Your task to perform on an android device: Open the camera Image 0: 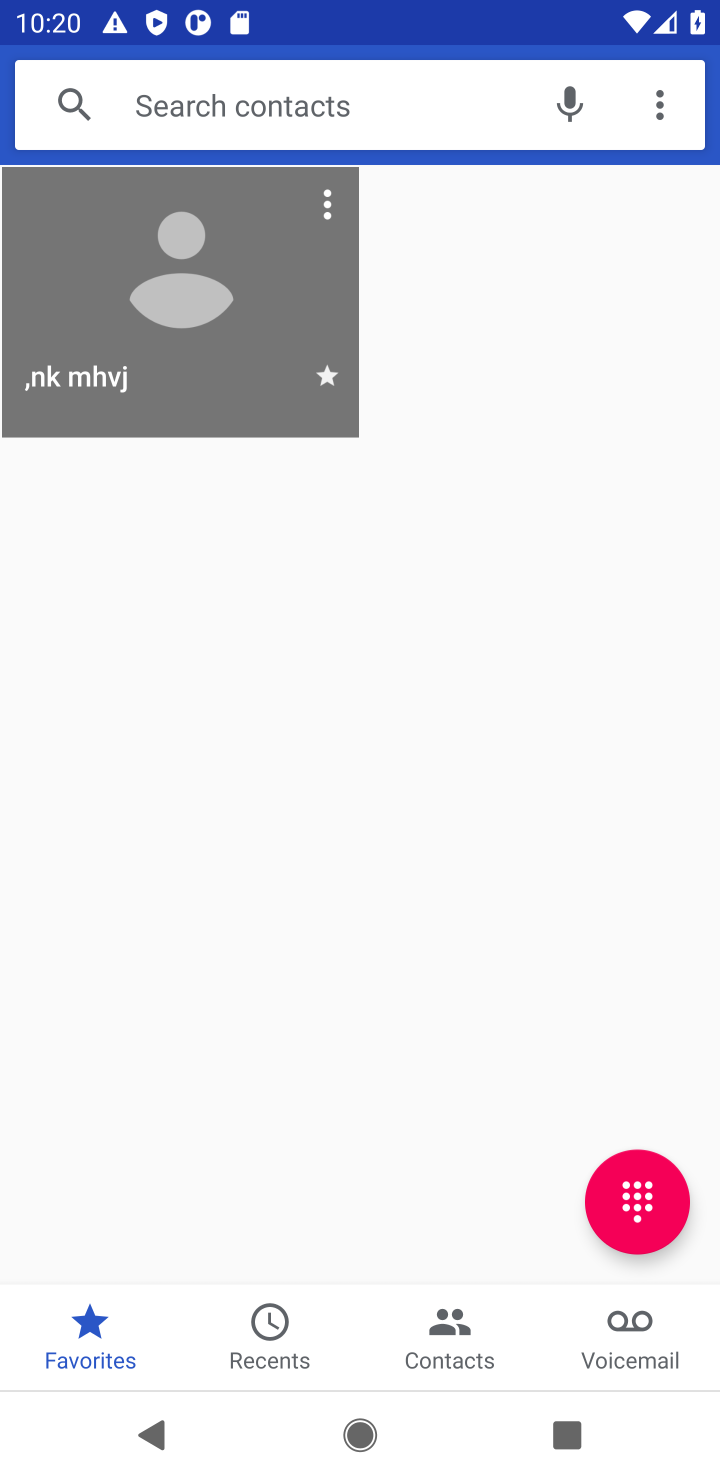
Step 0: press home button
Your task to perform on an android device: Open the camera Image 1: 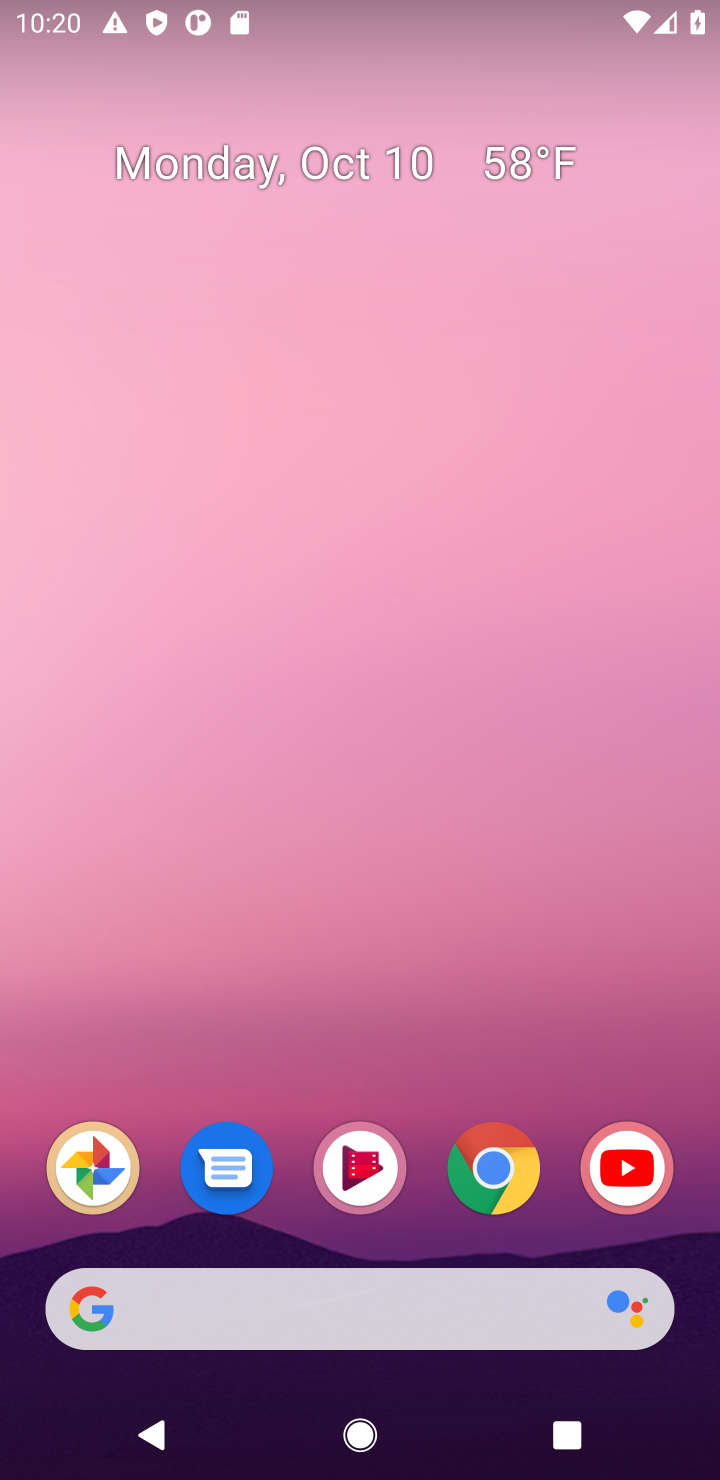
Step 1: drag from (362, 919) to (419, 368)
Your task to perform on an android device: Open the camera Image 2: 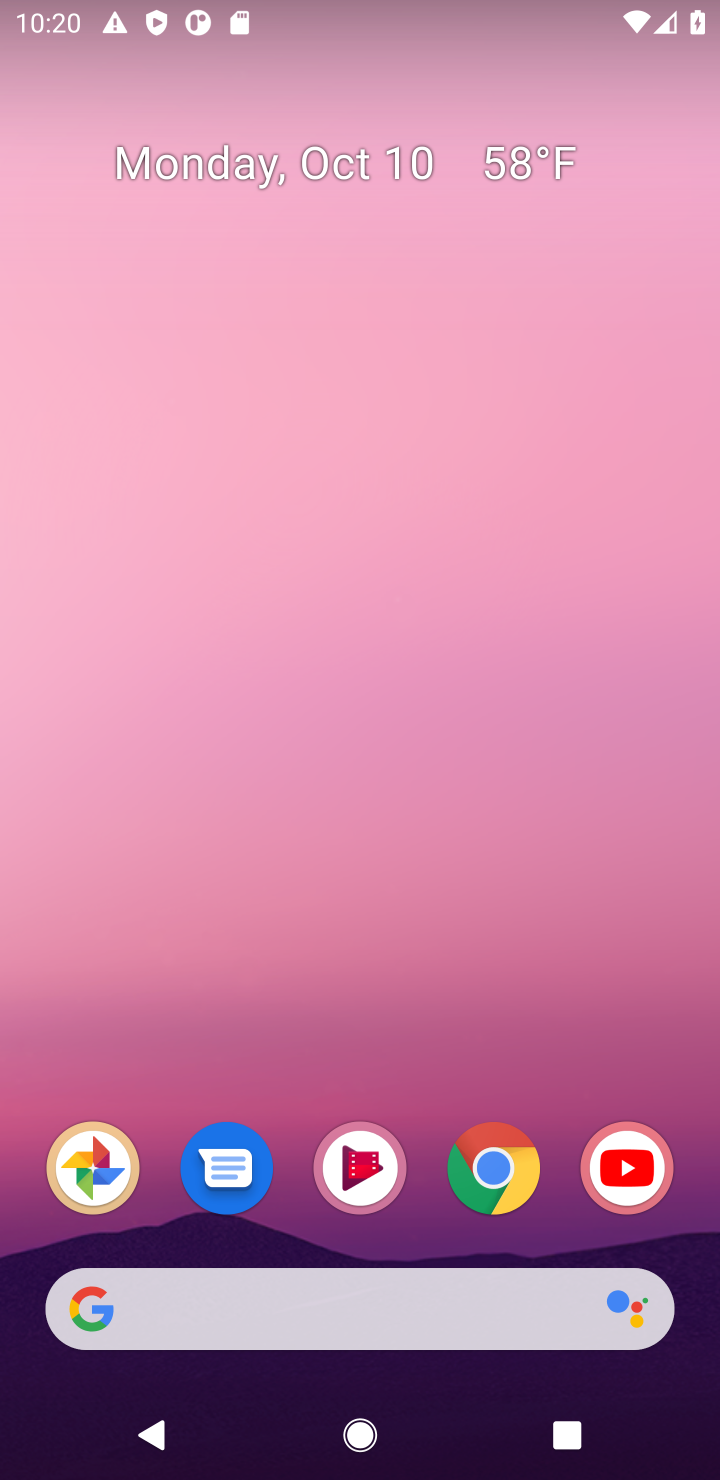
Step 2: drag from (331, 1104) to (428, 307)
Your task to perform on an android device: Open the camera Image 3: 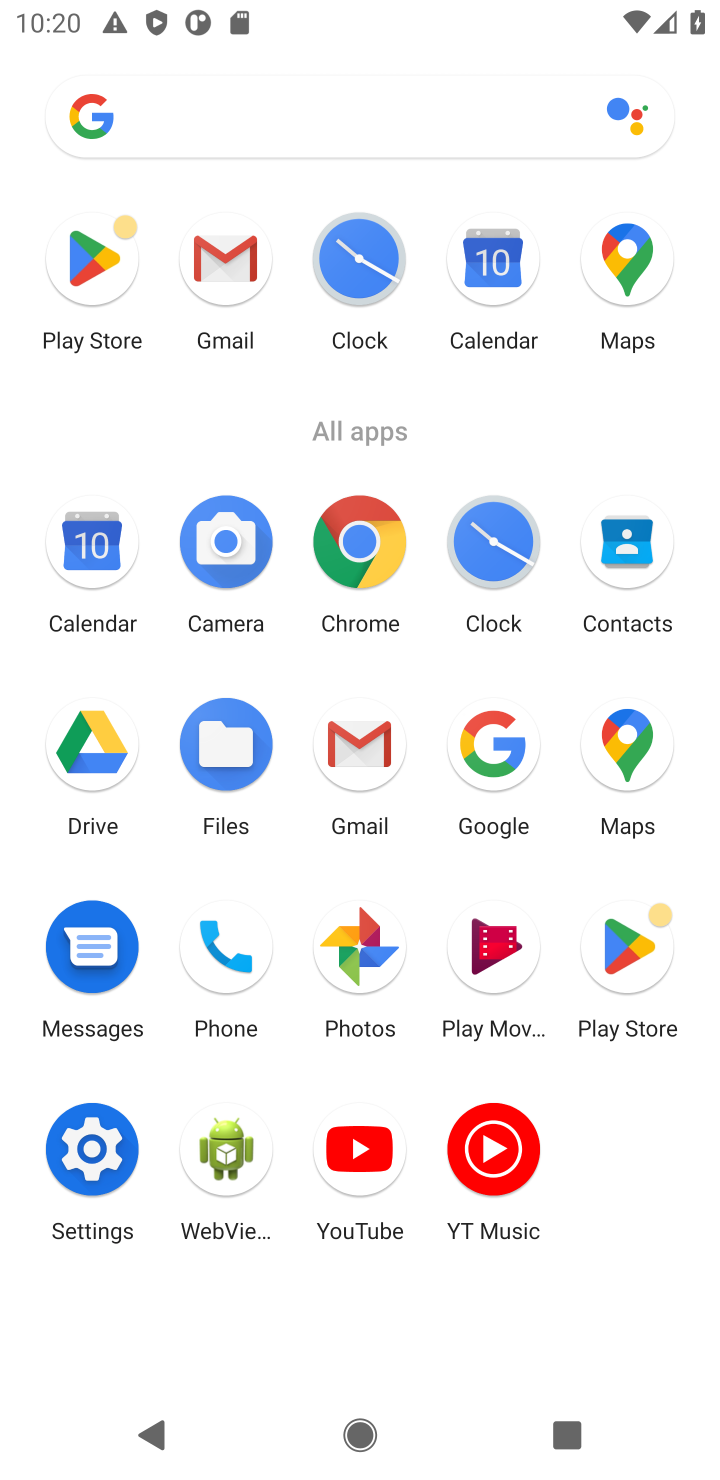
Step 3: click (224, 593)
Your task to perform on an android device: Open the camera Image 4: 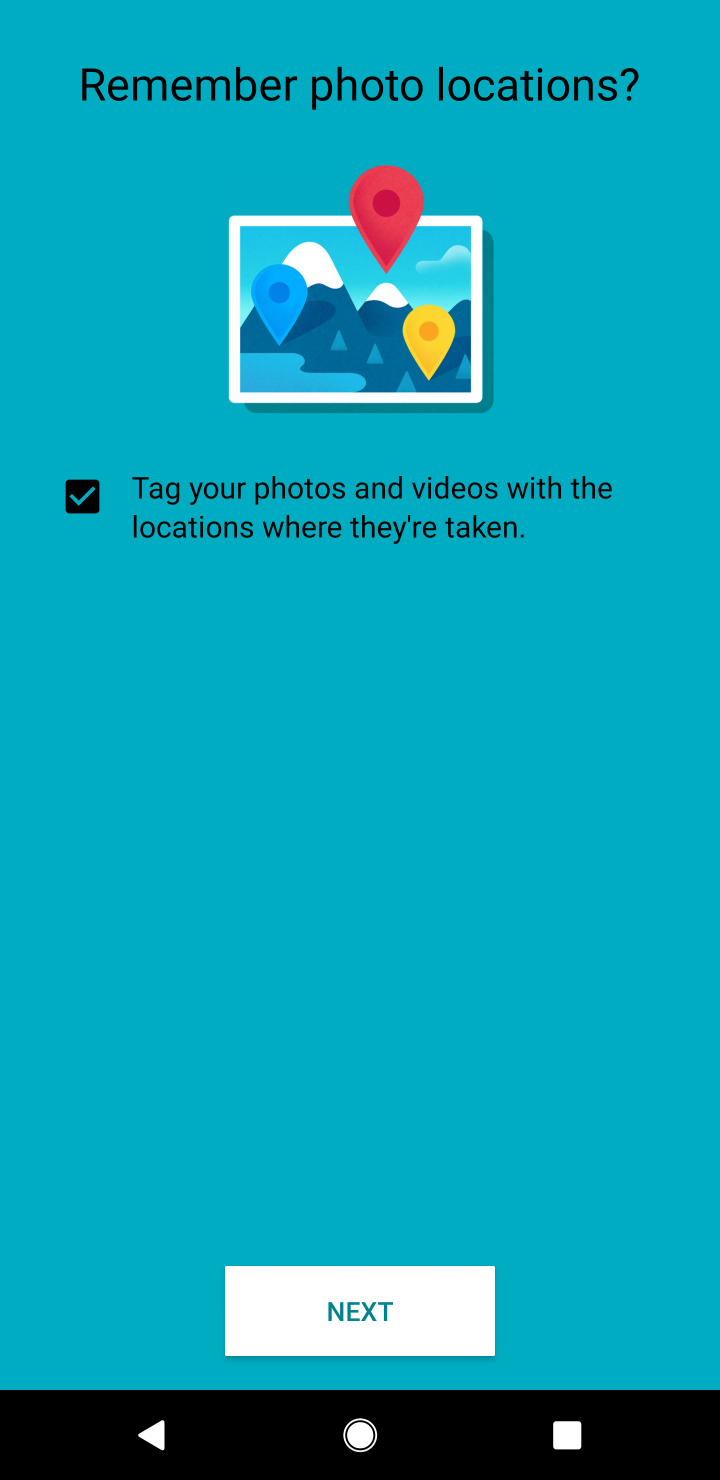
Step 4: click (354, 1278)
Your task to perform on an android device: Open the camera Image 5: 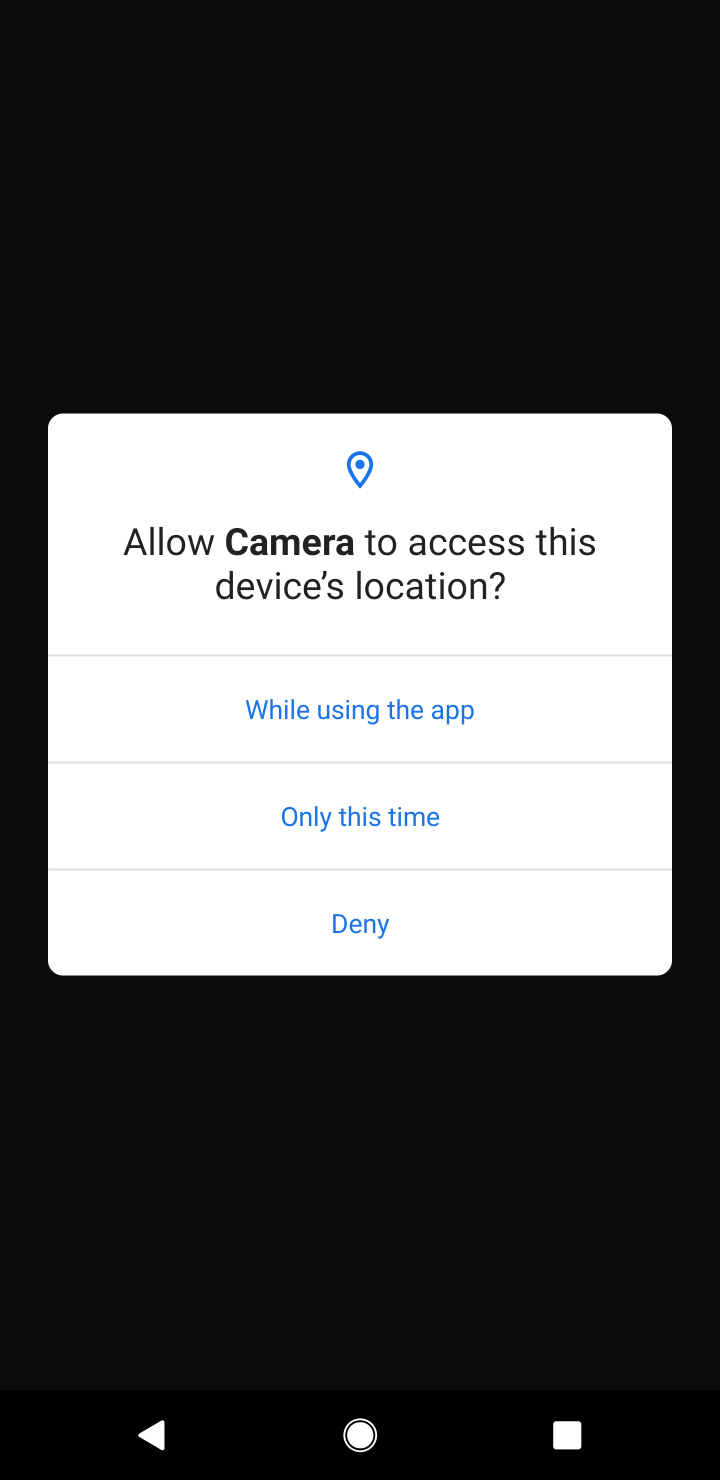
Step 5: click (451, 712)
Your task to perform on an android device: Open the camera Image 6: 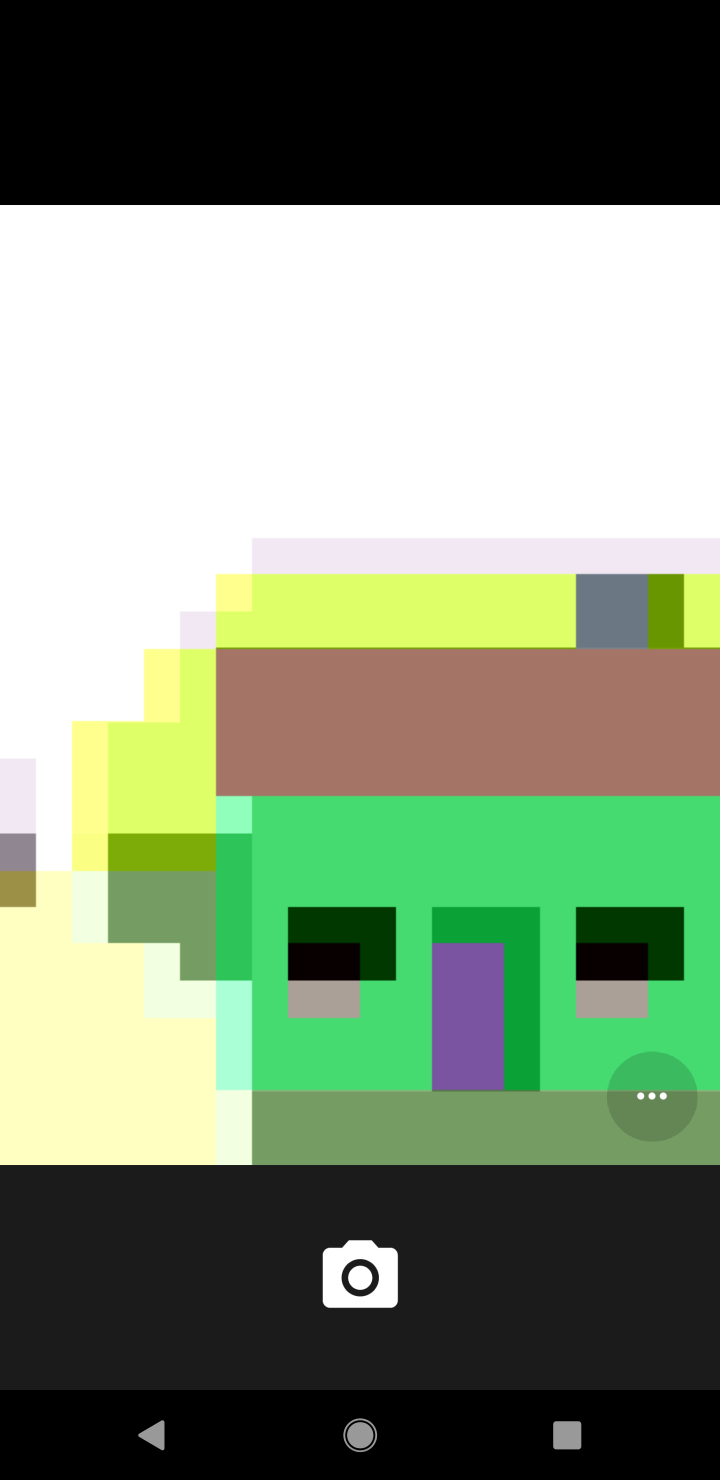
Step 6: task complete